Your task to perform on an android device: Check the weather Image 0: 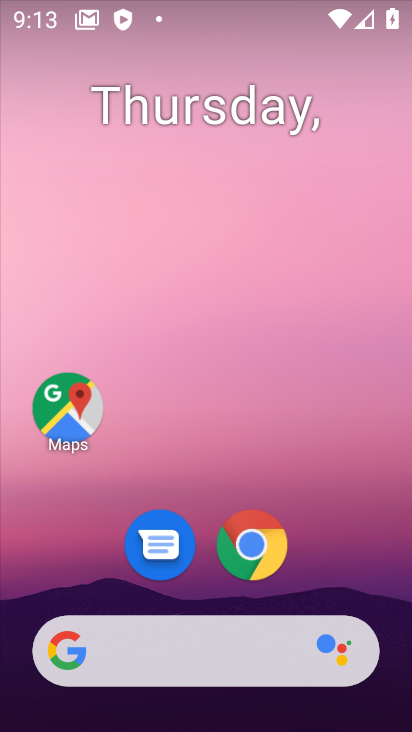
Step 0: click (222, 641)
Your task to perform on an android device: Check the weather Image 1: 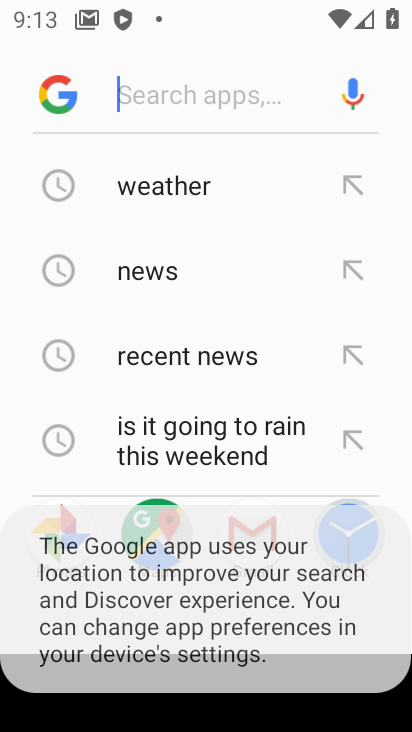
Step 1: click (164, 184)
Your task to perform on an android device: Check the weather Image 2: 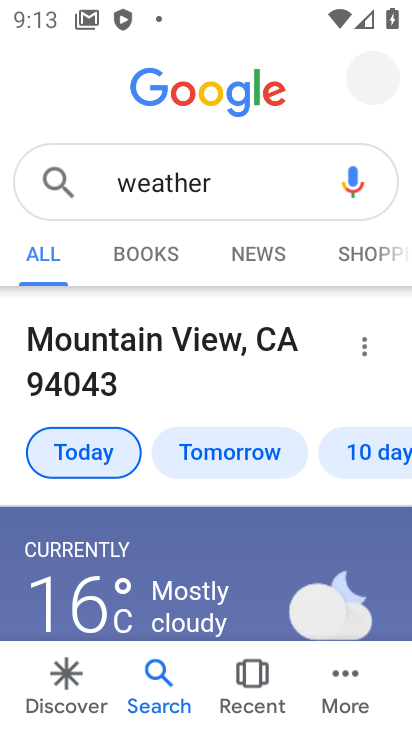
Step 2: task complete